Your task to perform on an android device: Open Android settings Image 0: 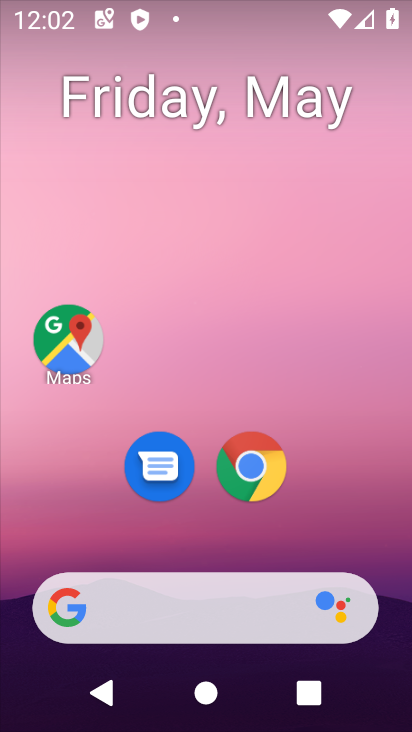
Step 0: drag from (385, 646) to (232, 66)
Your task to perform on an android device: Open Android settings Image 1: 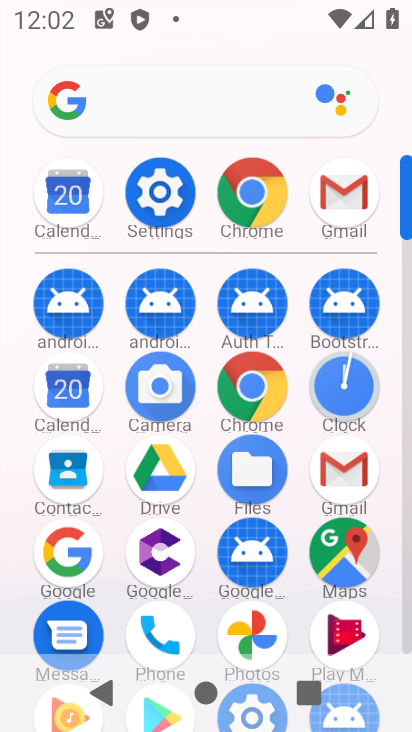
Step 1: click (147, 208)
Your task to perform on an android device: Open Android settings Image 2: 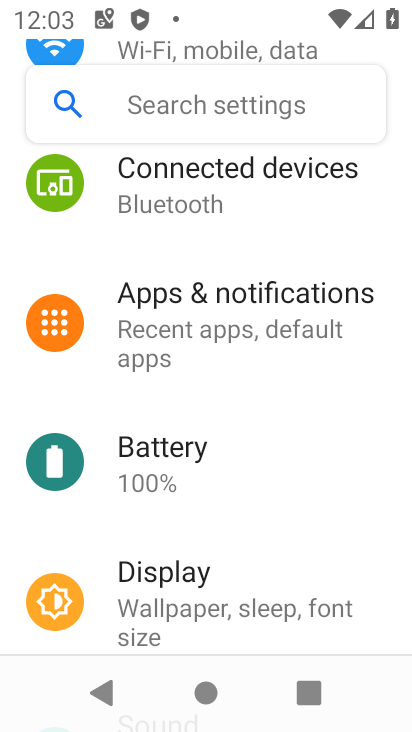
Step 2: drag from (226, 597) to (227, 72)
Your task to perform on an android device: Open Android settings Image 3: 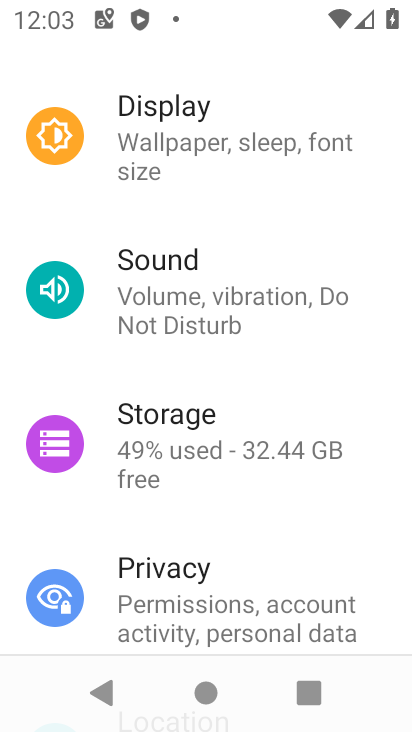
Step 3: drag from (257, 573) to (220, 75)
Your task to perform on an android device: Open Android settings Image 4: 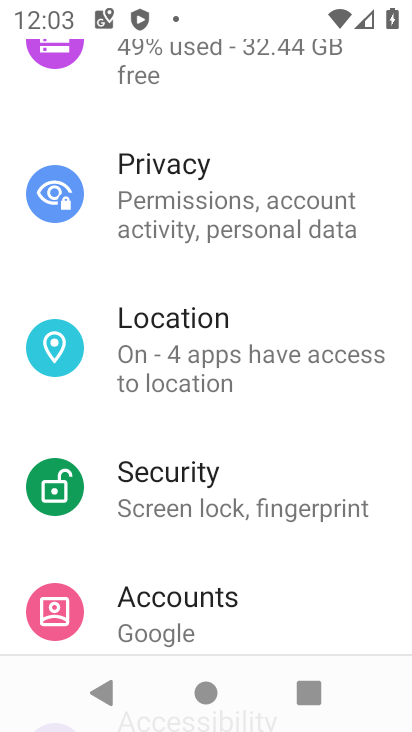
Step 4: drag from (194, 598) to (222, 94)
Your task to perform on an android device: Open Android settings Image 5: 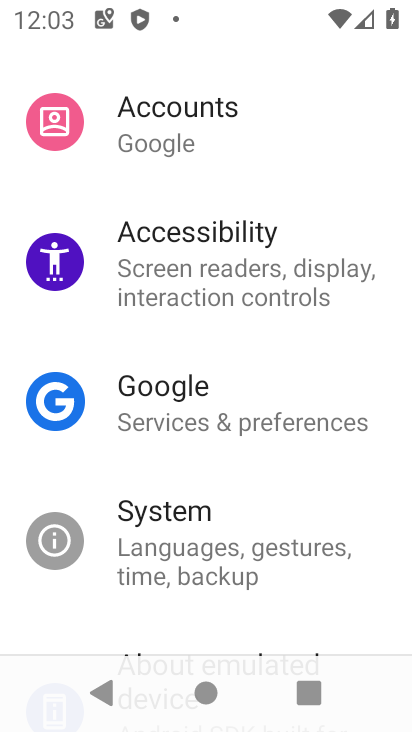
Step 5: drag from (193, 564) to (230, 110)
Your task to perform on an android device: Open Android settings Image 6: 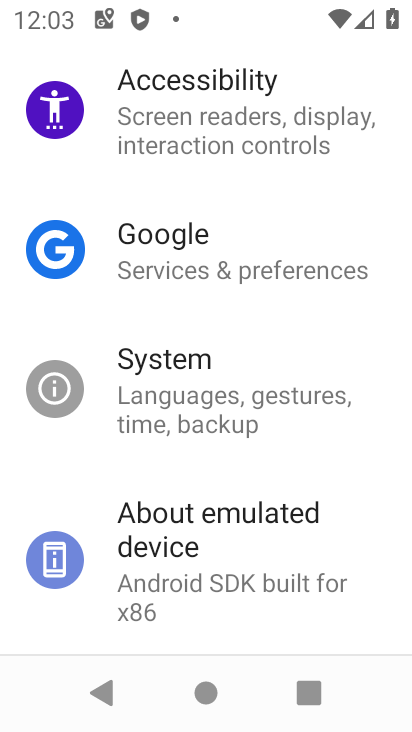
Step 6: click (251, 557)
Your task to perform on an android device: Open Android settings Image 7: 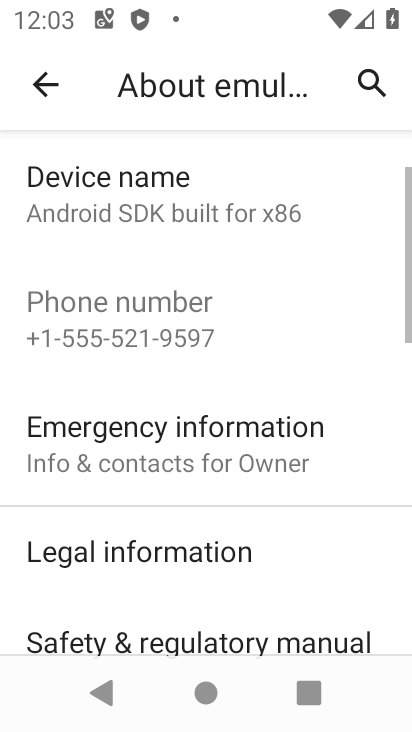
Step 7: drag from (177, 604) to (198, 147)
Your task to perform on an android device: Open Android settings Image 8: 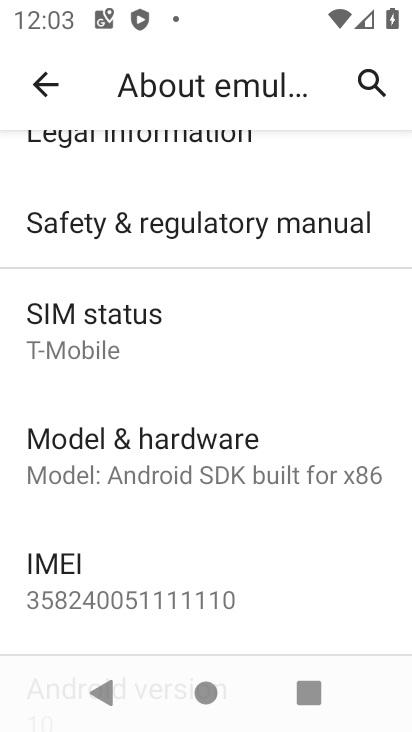
Step 8: drag from (214, 553) to (227, 162)
Your task to perform on an android device: Open Android settings Image 9: 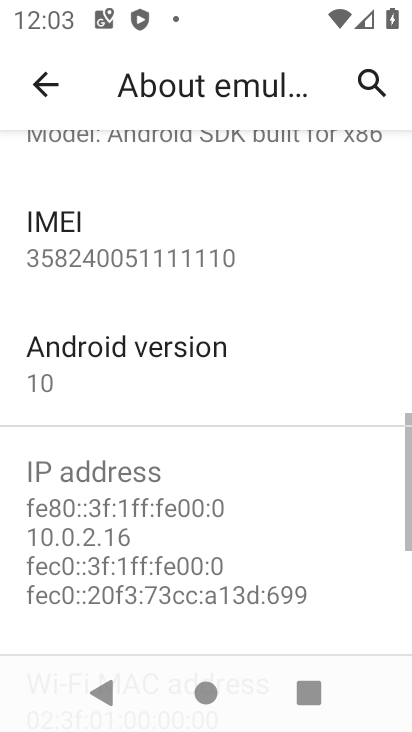
Step 9: click (171, 359)
Your task to perform on an android device: Open Android settings Image 10: 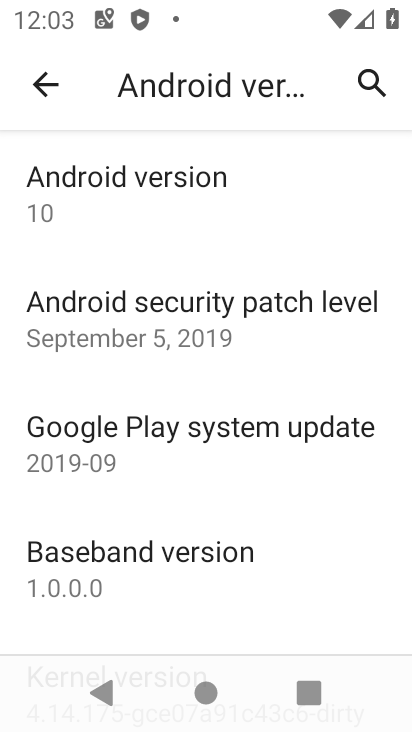
Step 10: task complete